Your task to perform on an android device: open the mobile data screen to see how much data has been used Image 0: 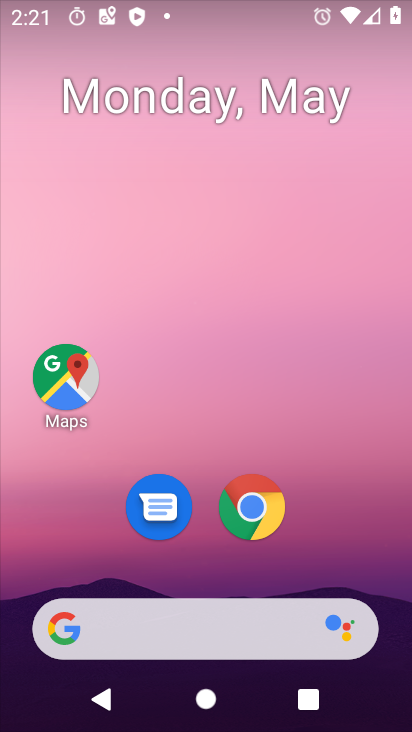
Step 0: drag from (246, 726) to (247, 25)
Your task to perform on an android device: open the mobile data screen to see how much data has been used Image 1: 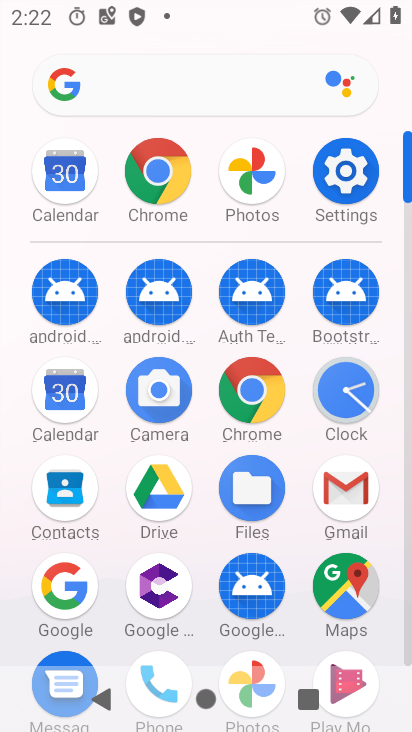
Step 1: click (339, 162)
Your task to perform on an android device: open the mobile data screen to see how much data has been used Image 2: 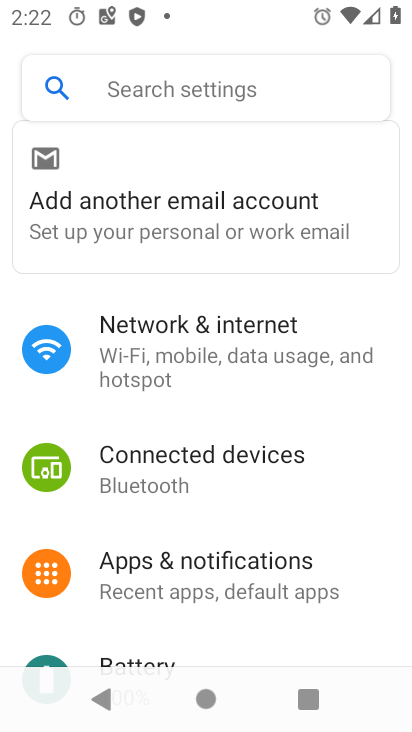
Step 2: drag from (171, 612) to (152, 460)
Your task to perform on an android device: open the mobile data screen to see how much data has been used Image 3: 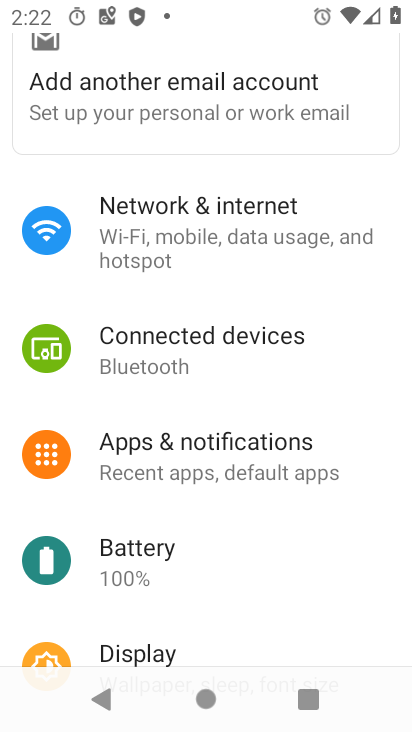
Step 3: click (152, 253)
Your task to perform on an android device: open the mobile data screen to see how much data has been used Image 4: 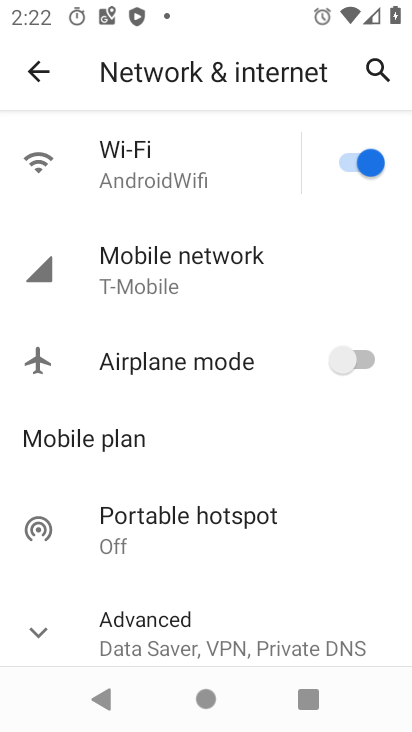
Step 4: drag from (179, 579) to (161, 448)
Your task to perform on an android device: open the mobile data screen to see how much data has been used Image 5: 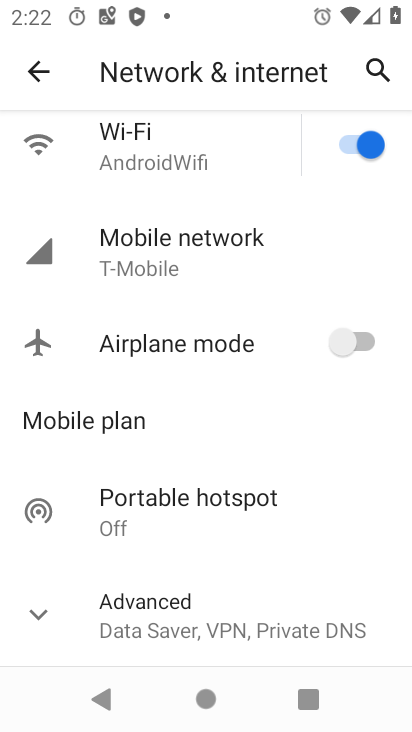
Step 5: click (150, 242)
Your task to perform on an android device: open the mobile data screen to see how much data has been used Image 6: 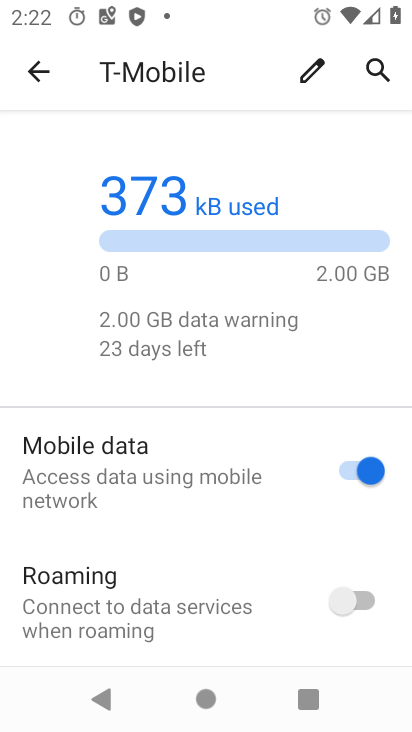
Step 6: drag from (134, 593) to (119, 273)
Your task to perform on an android device: open the mobile data screen to see how much data has been used Image 7: 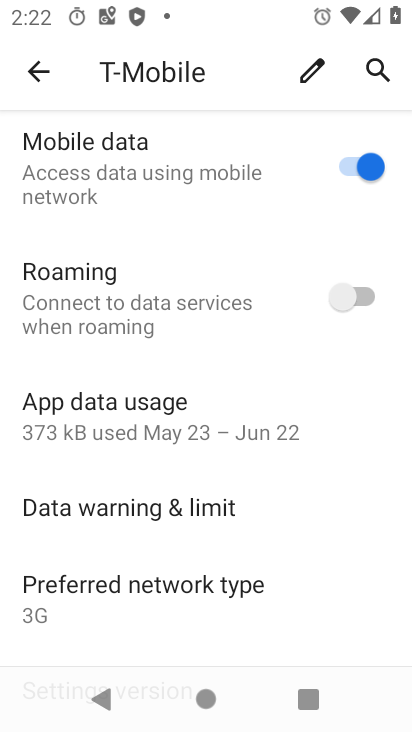
Step 7: click (136, 413)
Your task to perform on an android device: open the mobile data screen to see how much data has been used Image 8: 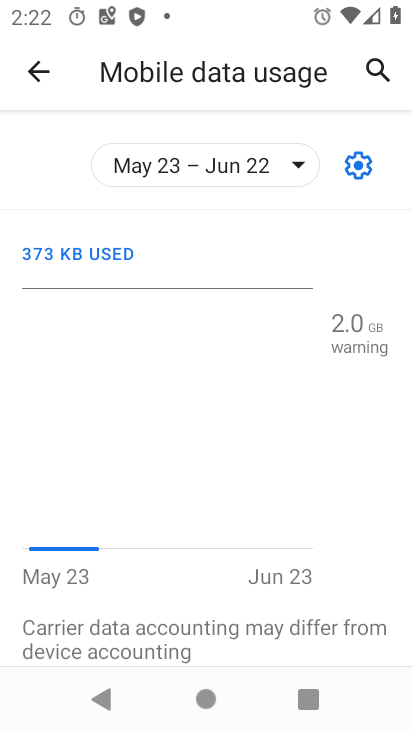
Step 8: task complete